Your task to perform on an android device: empty trash in the gmail app Image 0: 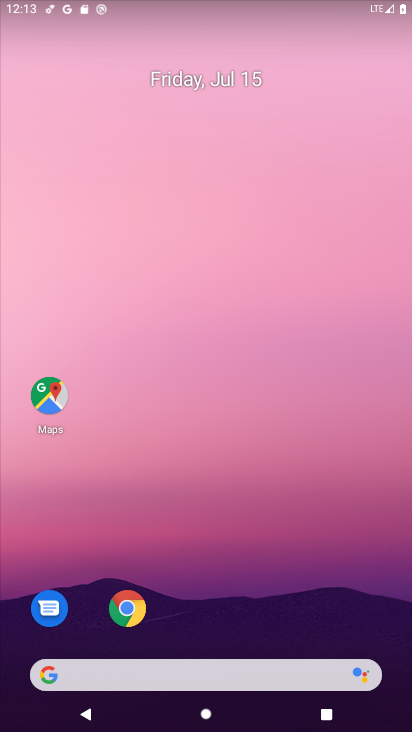
Step 0: drag from (212, 544) to (124, 45)
Your task to perform on an android device: empty trash in the gmail app Image 1: 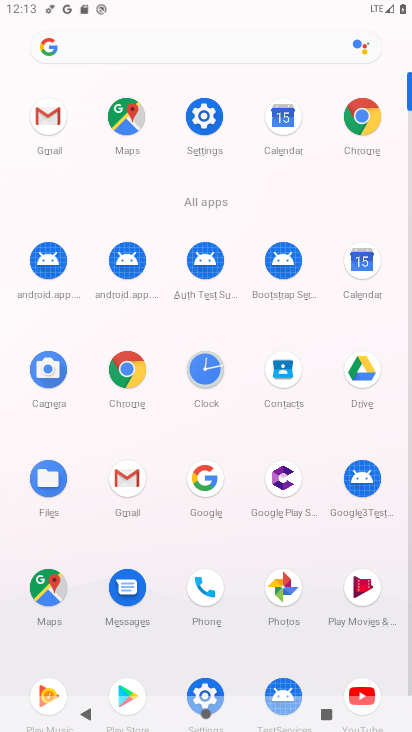
Step 1: click (126, 481)
Your task to perform on an android device: empty trash in the gmail app Image 2: 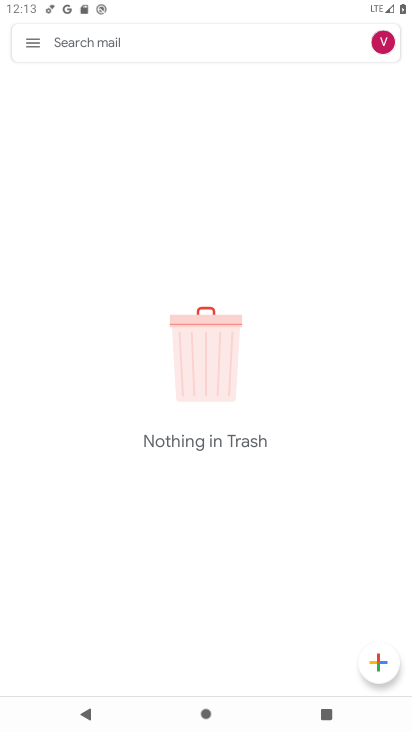
Step 2: task complete